Your task to perform on an android device: open the mobile data screen to see how much data has been used Image 0: 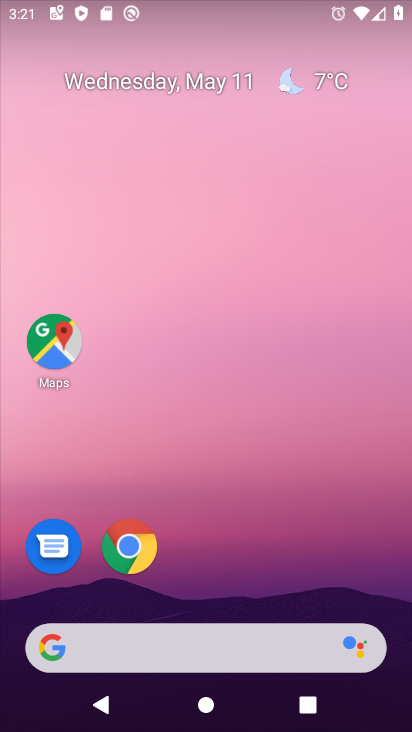
Step 0: drag from (290, 583) to (308, 18)
Your task to perform on an android device: open the mobile data screen to see how much data has been used Image 1: 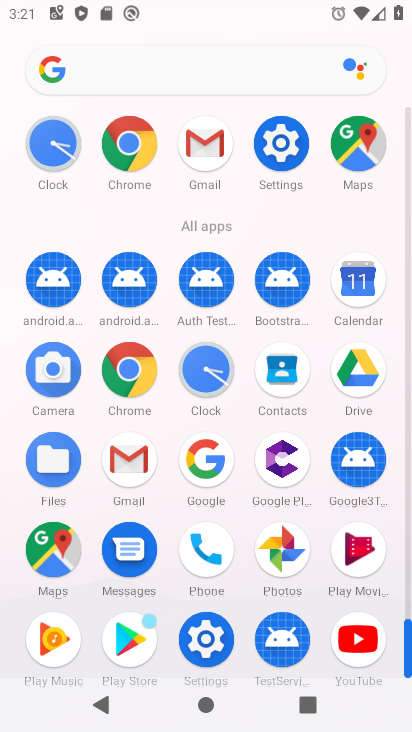
Step 1: click (282, 146)
Your task to perform on an android device: open the mobile data screen to see how much data has been used Image 2: 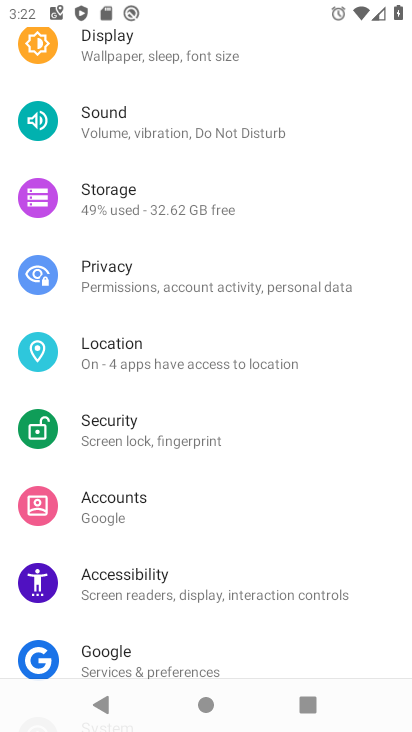
Step 2: drag from (304, 158) to (286, 667)
Your task to perform on an android device: open the mobile data screen to see how much data has been used Image 3: 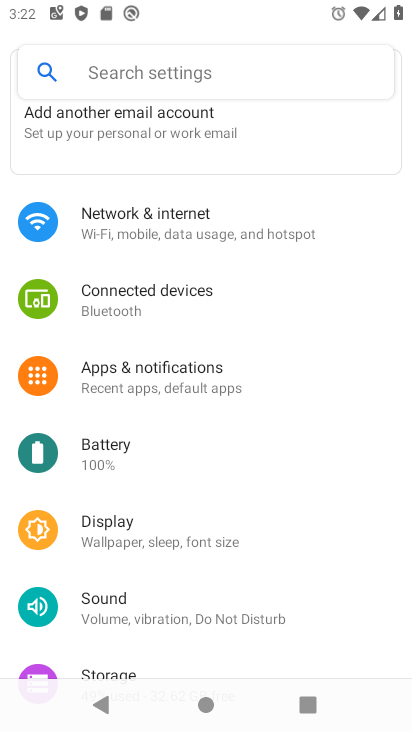
Step 3: click (224, 220)
Your task to perform on an android device: open the mobile data screen to see how much data has been used Image 4: 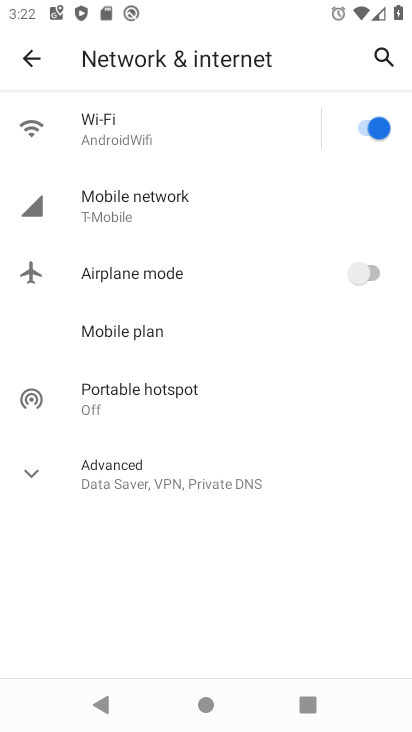
Step 4: click (186, 205)
Your task to perform on an android device: open the mobile data screen to see how much data has been used Image 5: 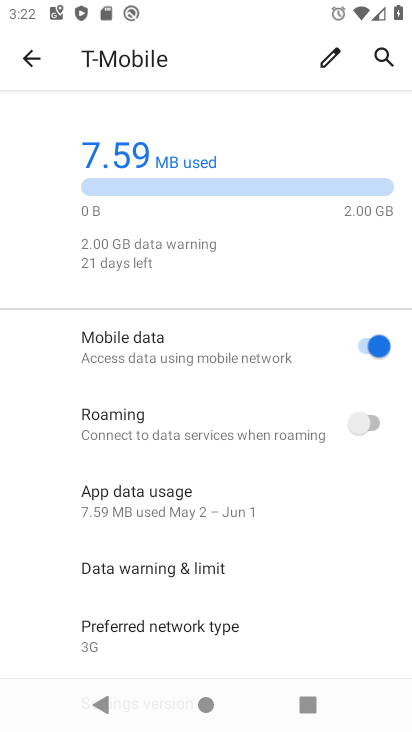
Step 5: click (226, 505)
Your task to perform on an android device: open the mobile data screen to see how much data has been used Image 6: 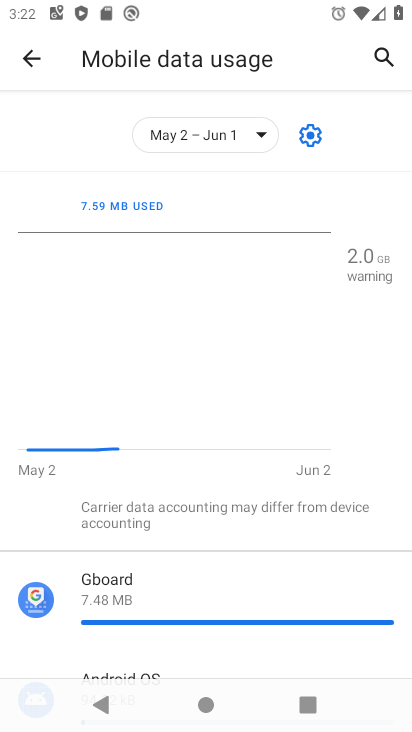
Step 6: task complete